Your task to perform on an android device: Go to Reddit.com Image 0: 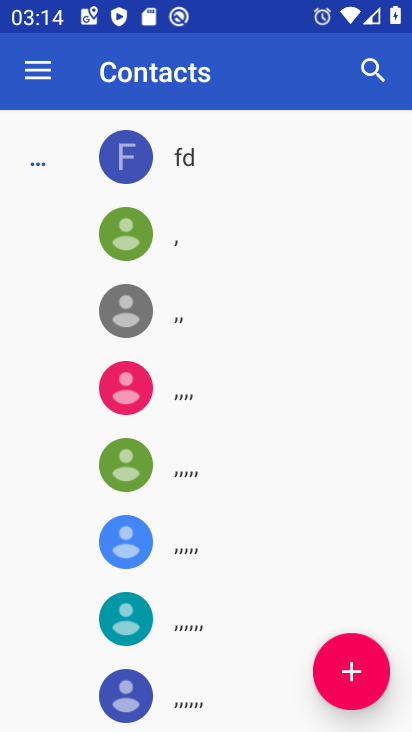
Step 0: press home button
Your task to perform on an android device: Go to Reddit.com Image 1: 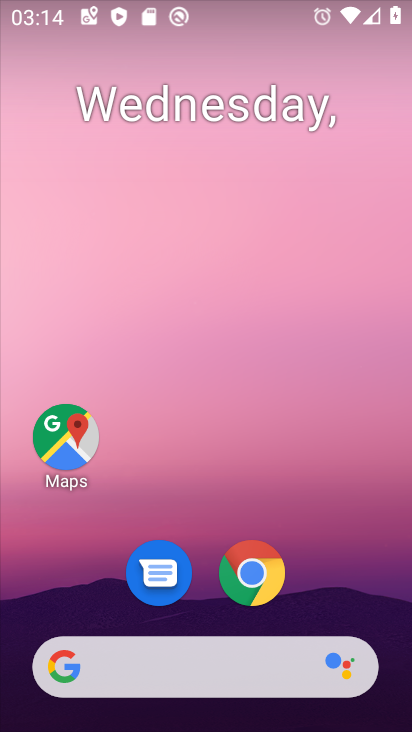
Step 1: click (252, 572)
Your task to perform on an android device: Go to Reddit.com Image 2: 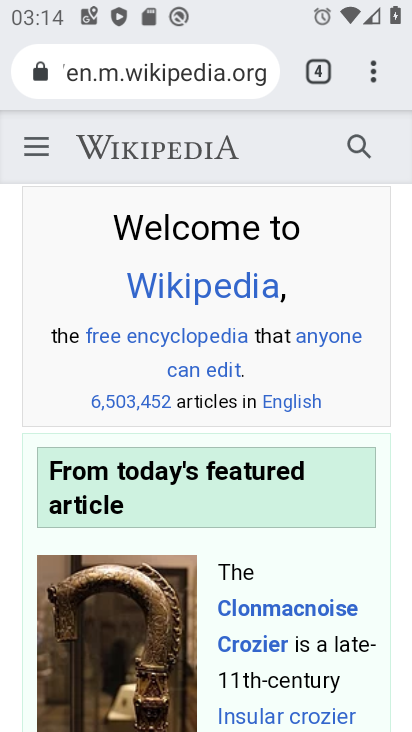
Step 2: click (371, 77)
Your task to perform on an android device: Go to Reddit.com Image 3: 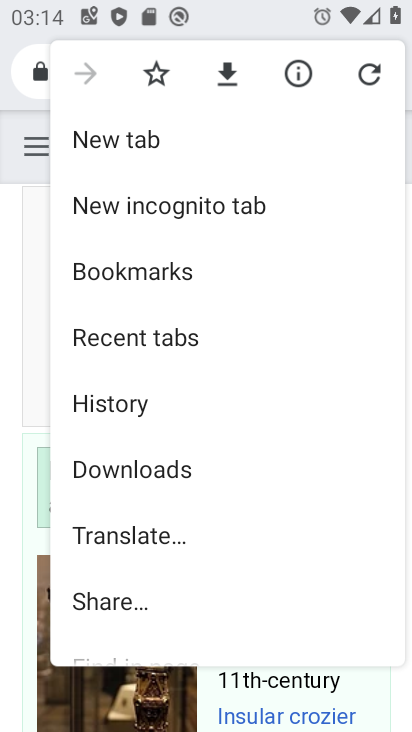
Step 3: click (87, 141)
Your task to perform on an android device: Go to Reddit.com Image 4: 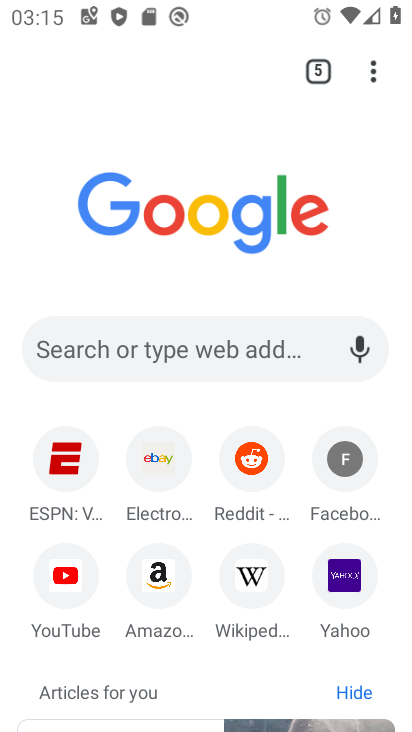
Step 4: click (261, 451)
Your task to perform on an android device: Go to Reddit.com Image 5: 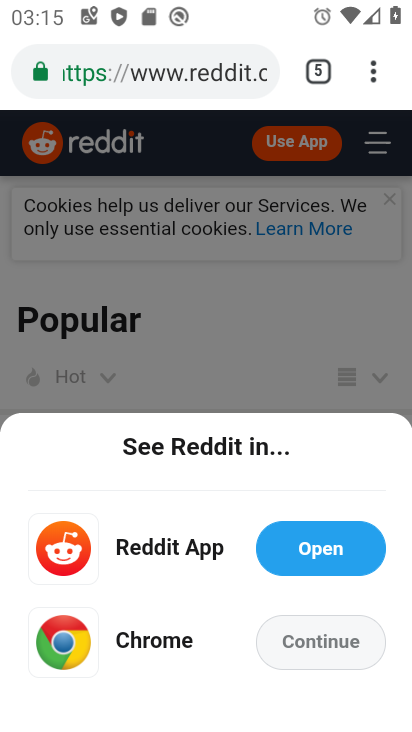
Step 5: task complete